Your task to perform on an android device: Go to wifi settings Image 0: 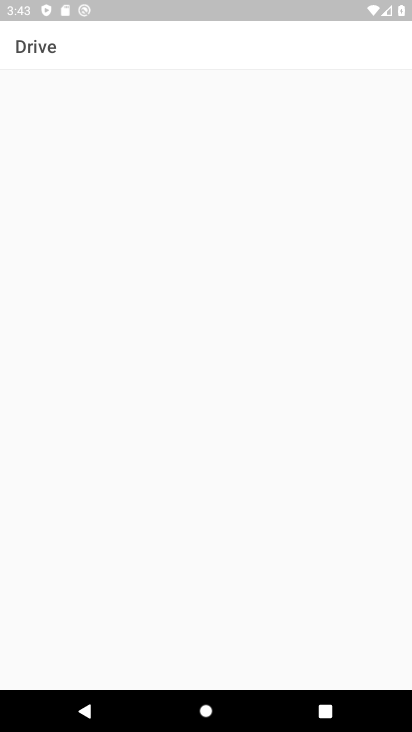
Step 0: press home button
Your task to perform on an android device: Go to wifi settings Image 1: 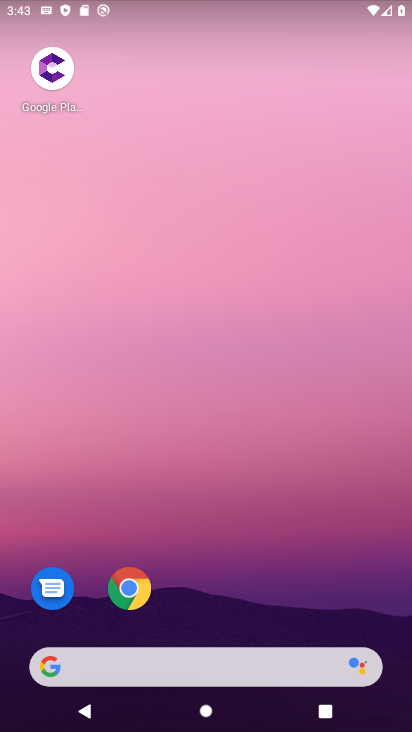
Step 1: drag from (190, 590) to (205, 17)
Your task to perform on an android device: Go to wifi settings Image 2: 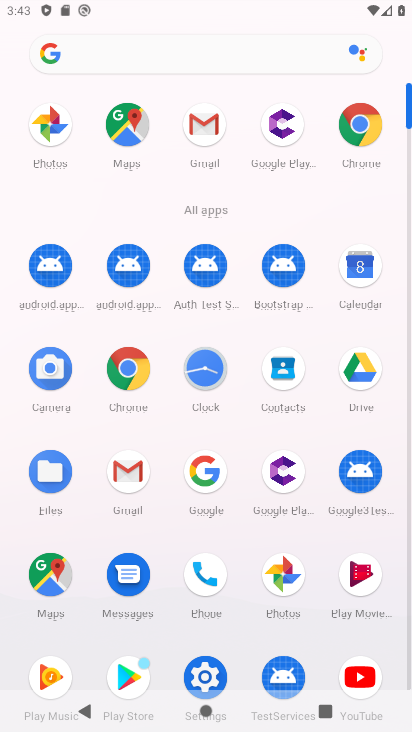
Step 2: click (208, 657)
Your task to perform on an android device: Go to wifi settings Image 3: 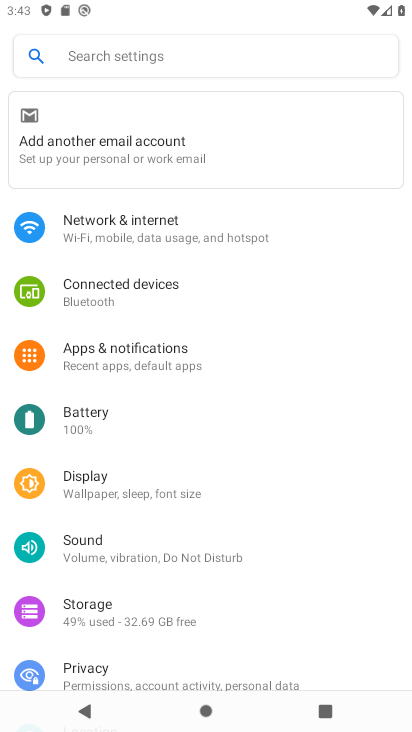
Step 3: click (171, 237)
Your task to perform on an android device: Go to wifi settings Image 4: 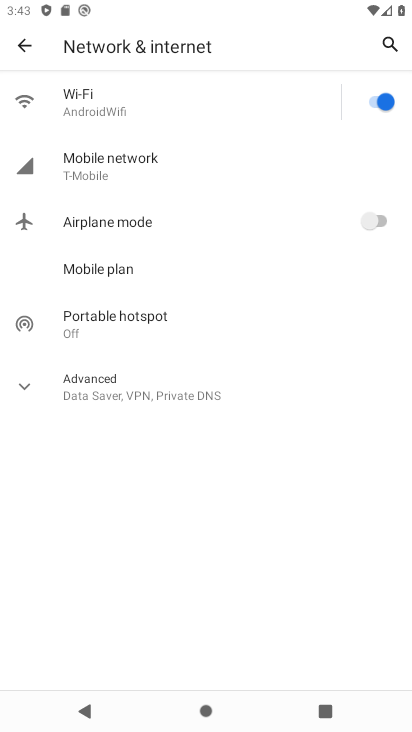
Step 4: click (120, 108)
Your task to perform on an android device: Go to wifi settings Image 5: 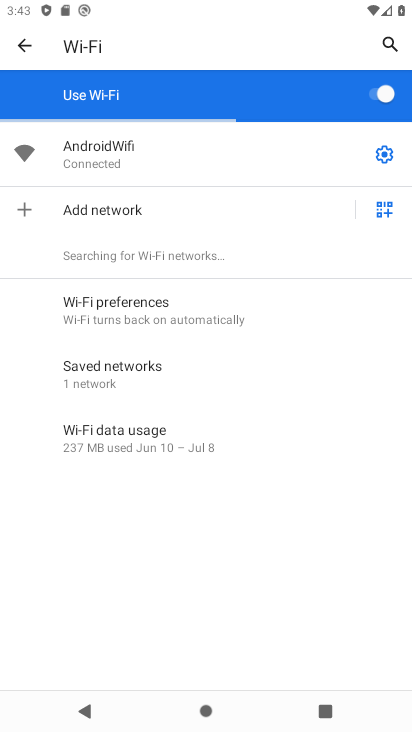
Step 5: task complete